Your task to perform on an android device: Empty the shopping cart on bestbuy.com. Search for macbook on bestbuy.com, select the first entry, add it to the cart, then select checkout. Image 0: 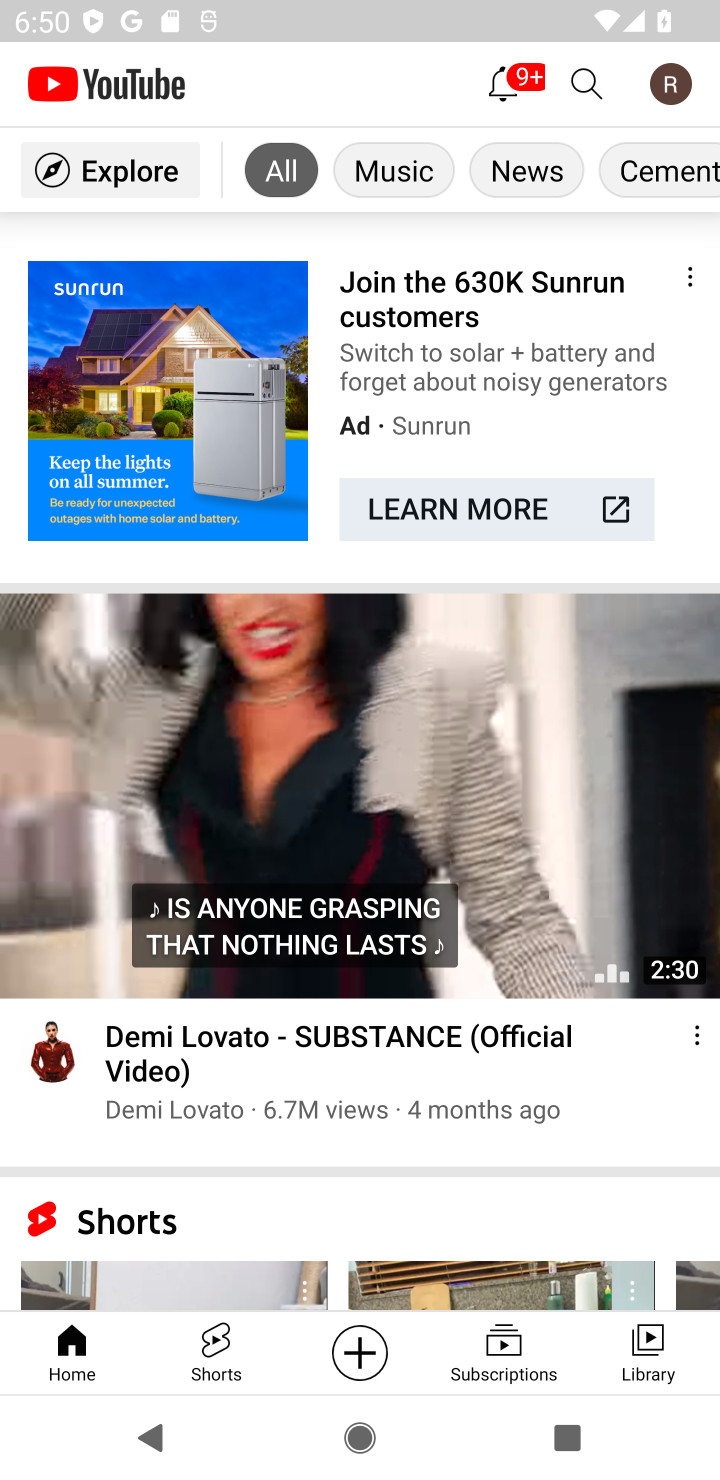
Step 0: press home button
Your task to perform on an android device: Empty the shopping cart on bestbuy.com. Search for macbook on bestbuy.com, select the first entry, add it to the cart, then select checkout. Image 1: 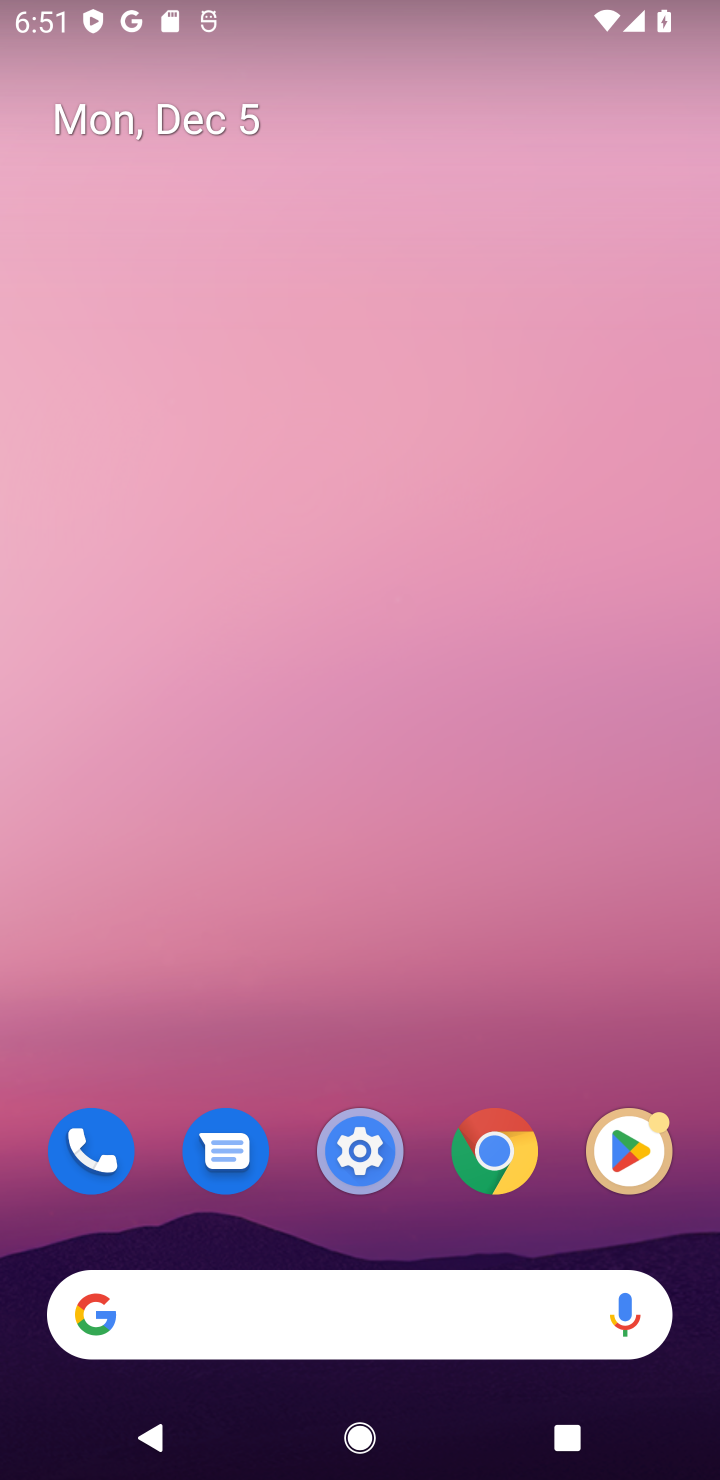
Step 1: click (317, 1286)
Your task to perform on an android device: Empty the shopping cart on bestbuy.com. Search for macbook on bestbuy.com, select the first entry, add it to the cart, then select checkout. Image 2: 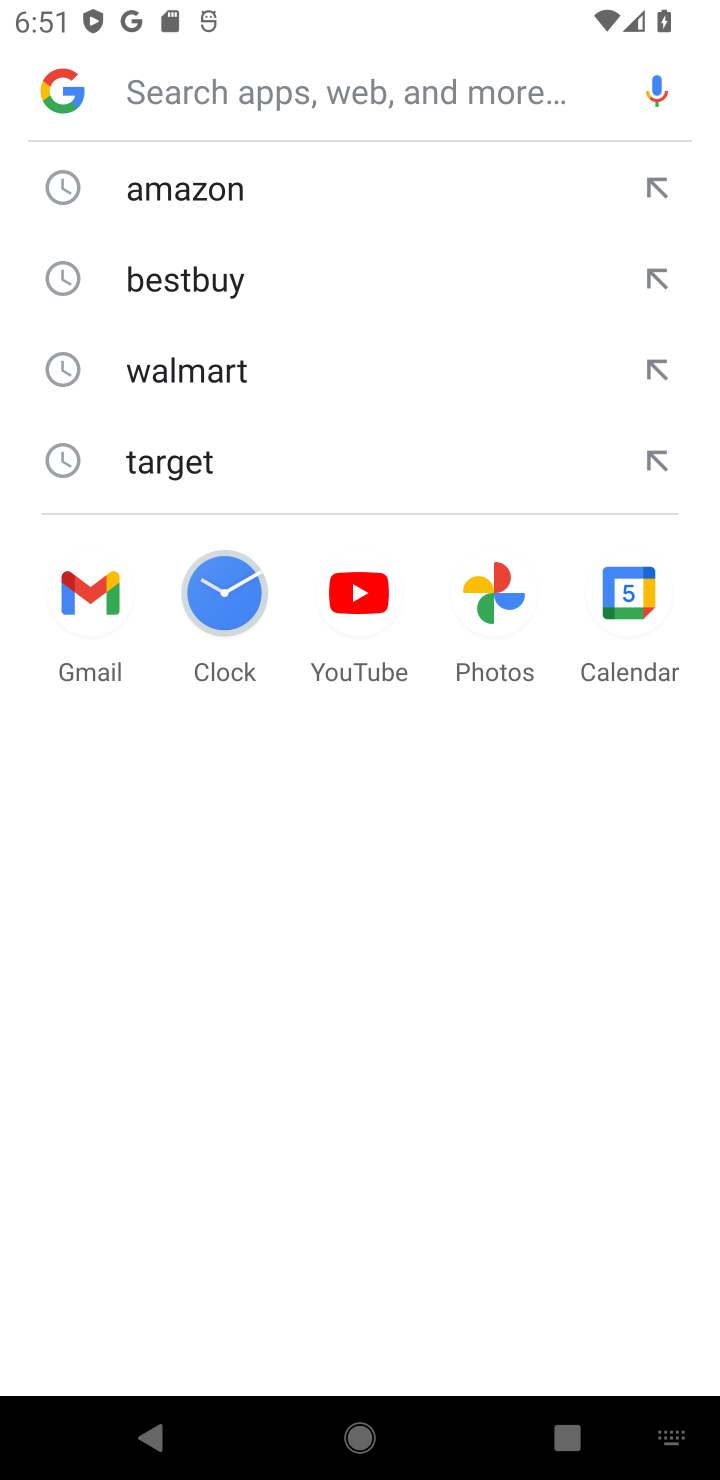
Step 2: click (124, 323)
Your task to perform on an android device: Empty the shopping cart on bestbuy.com. Search for macbook on bestbuy.com, select the first entry, add it to the cart, then select checkout. Image 3: 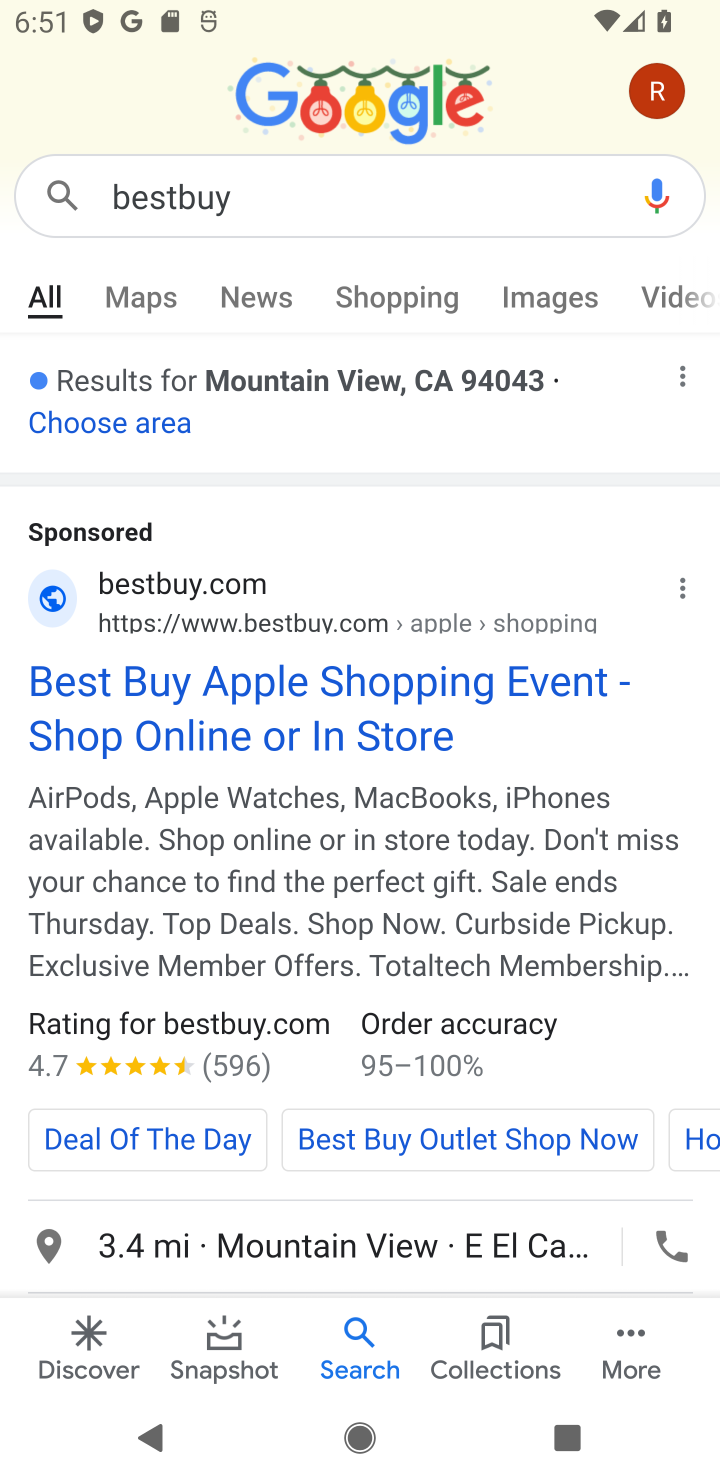
Step 3: click (200, 696)
Your task to perform on an android device: Empty the shopping cart on bestbuy.com. Search for macbook on bestbuy.com, select the first entry, add it to the cart, then select checkout. Image 4: 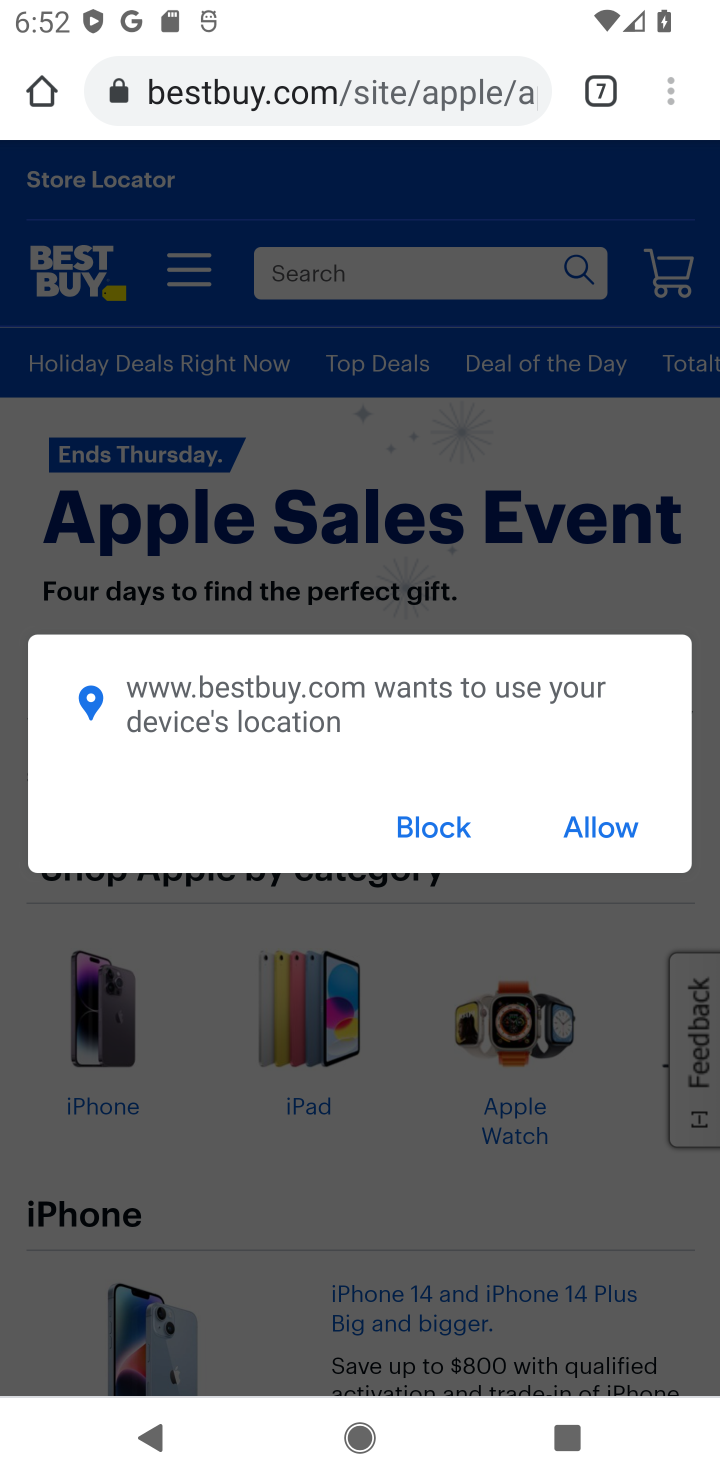
Step 4: click (582, 837)
Your task to perform on an android device: Empty the shopping cart on bestbuy.com. Search for macbook on bestbuy.com, select the first entry, add it to the cart, then select checkout. Image 5: 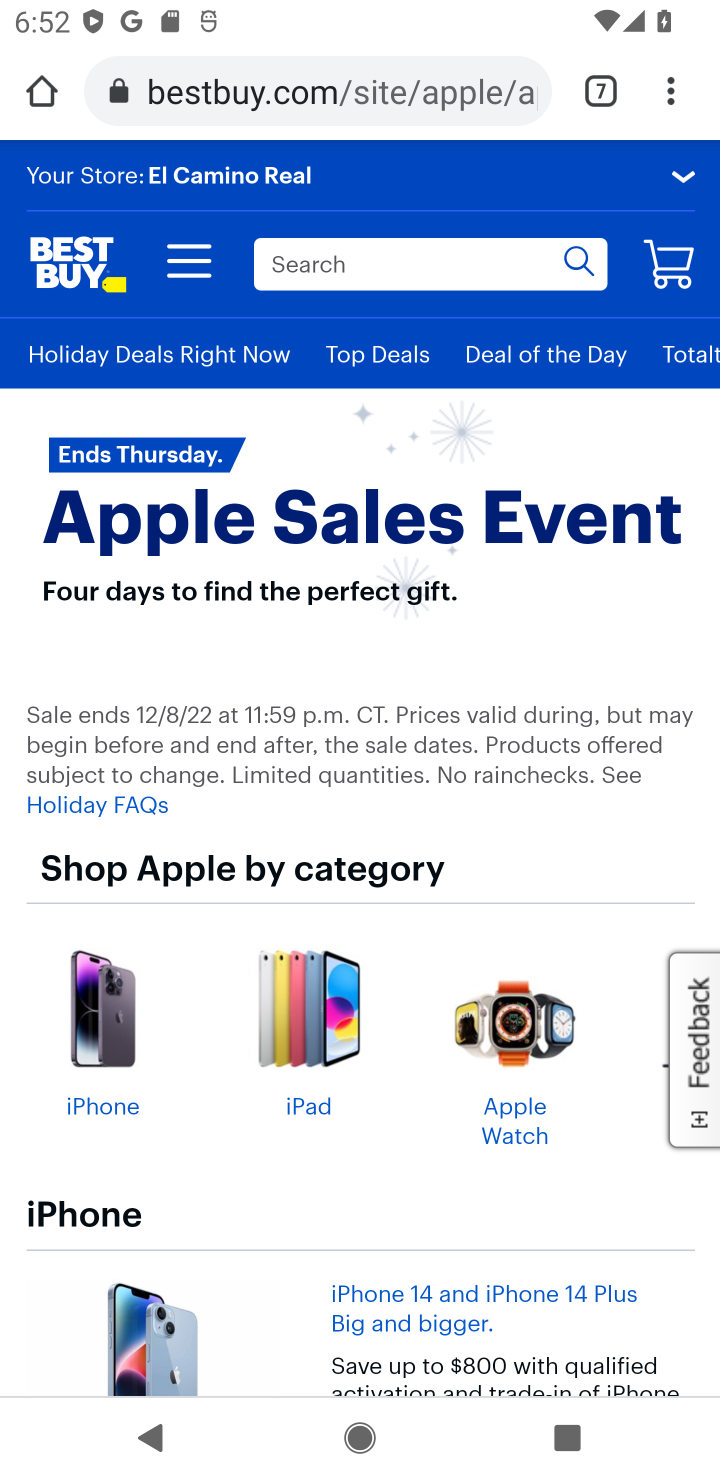
Step 5: click (428, 267)
Your task to perform on an android device: Empty the shopping cart on bestbuy.com. Search for macbook on bestbuy.com, select the first entry, add it to the cart, then select checkout. Image 6: 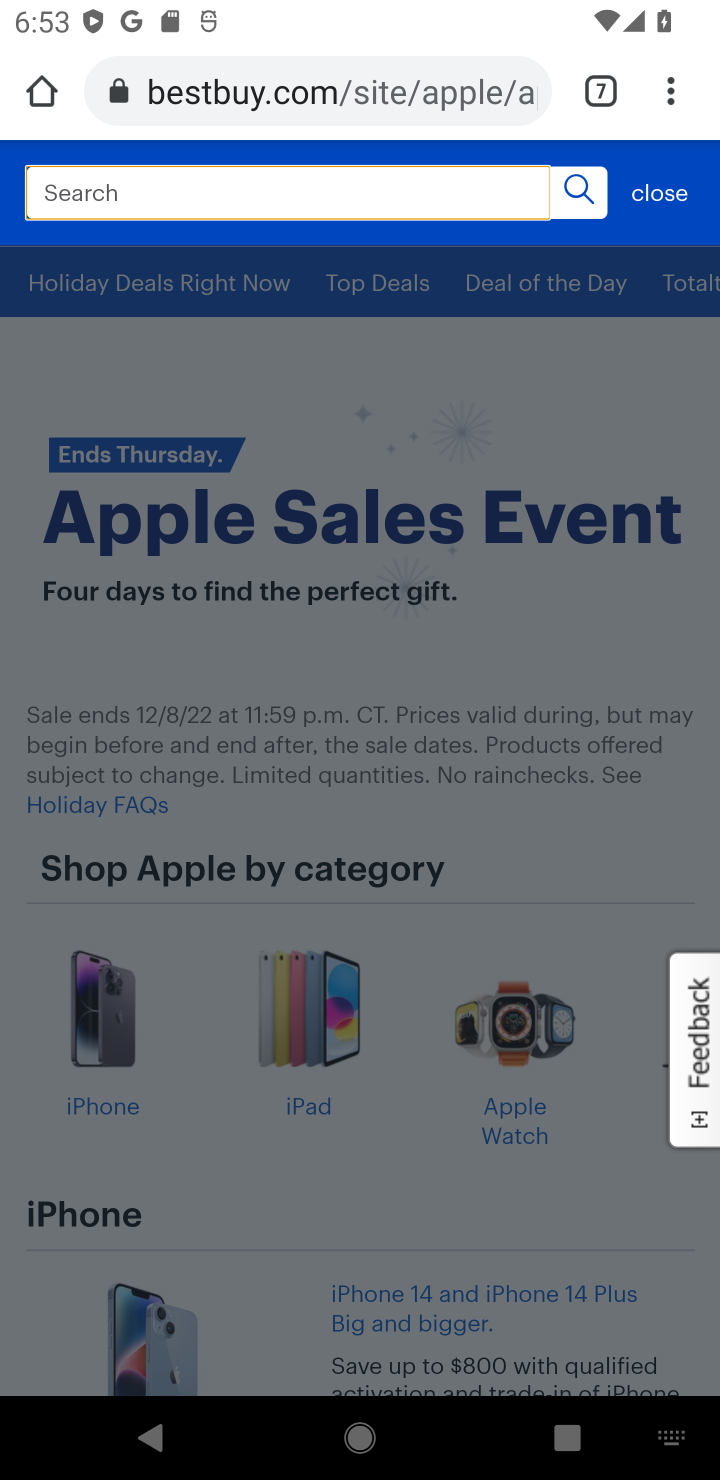
Step 6: click (273, 191)
Your task to perform on an android device: Empty the shopping cart on bestbuy.com. Search for macbook on bestbuy.com, select the first entry, add it to the cart, then select checkout. Image 7: 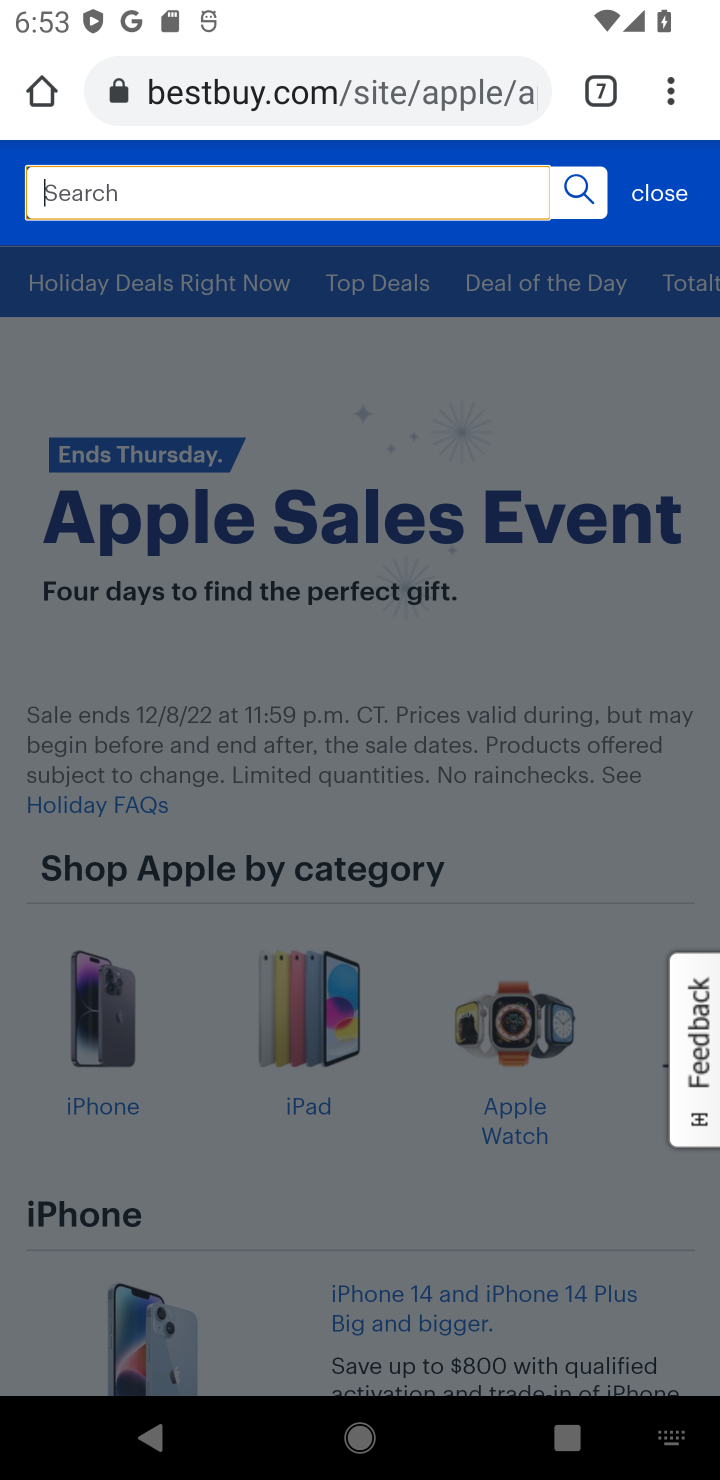
Step 7: type "mac"
Your task to perform on an android device: Empty the shopping cart on bestbuy.com. Search for macbook on bestbuy.com, select the first entry, add it to the cart, then select checkout. Image 8: 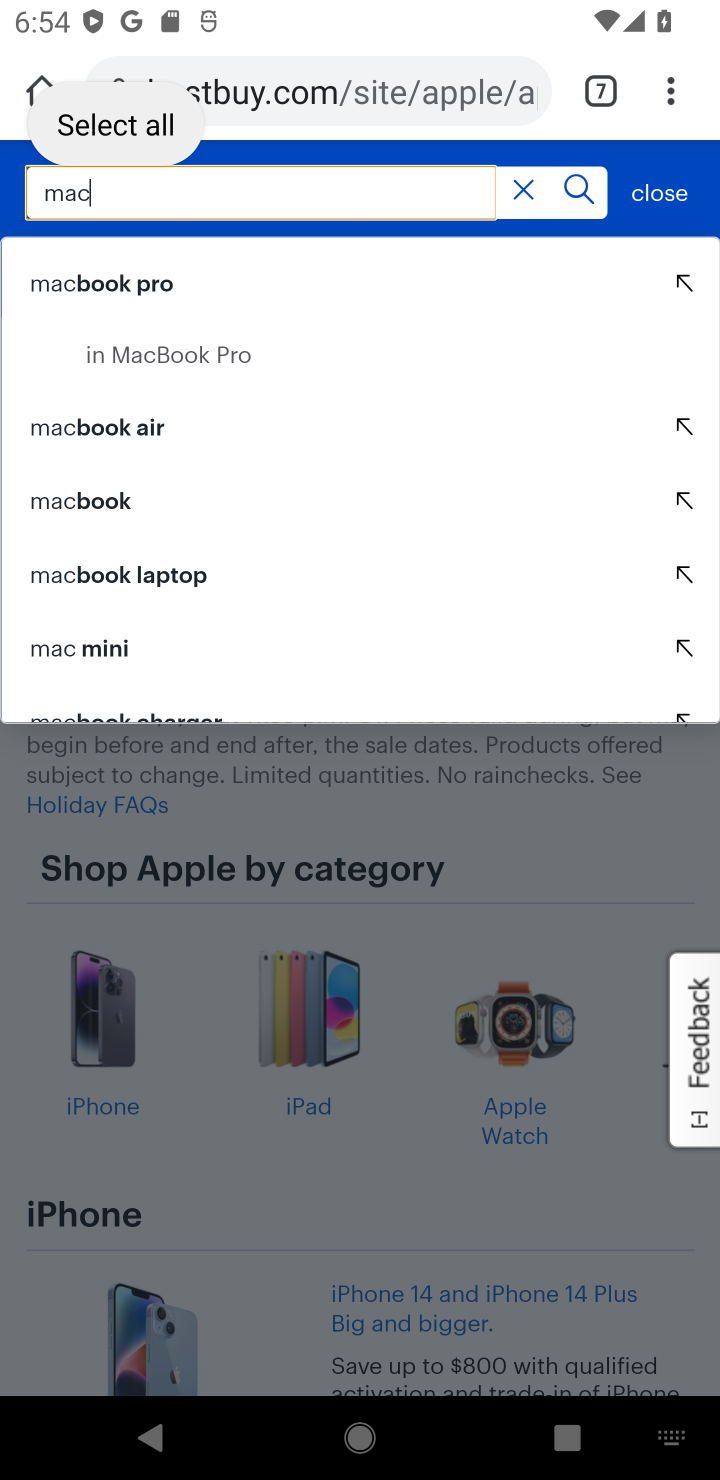
Step 8: type "macbook "
Your task to perform on an android device: Empty the shopping cart on bestbuy.com. Search for macbook on bestbuy.com, select the first entry, add it to the cart, then select checkout. Image 9: 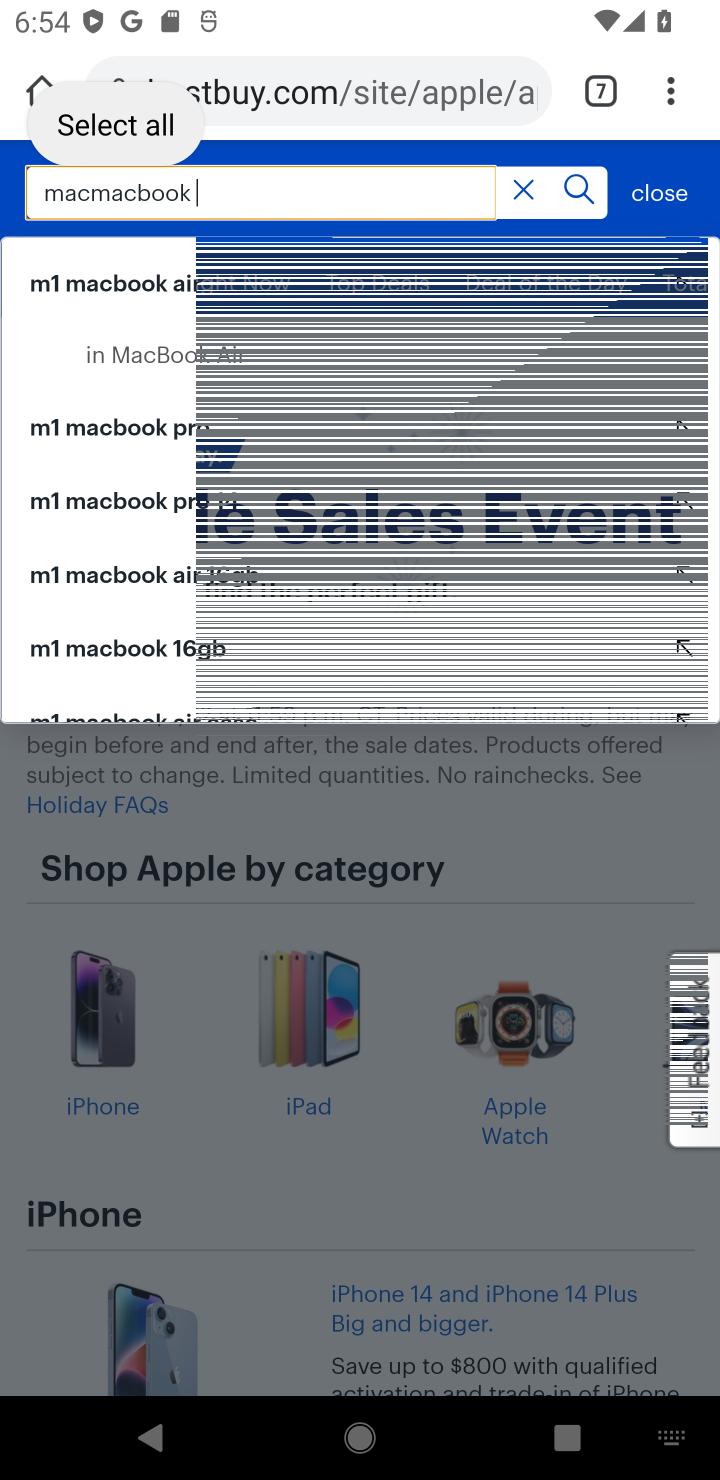
Step 9: click (61, 279)
Your task to perform on an android device: Empty the shopping cart on bestbuy.com. Search for macbook on bestbuy.com, select the first entry, add it to the cart, then select checkout. Image 10: 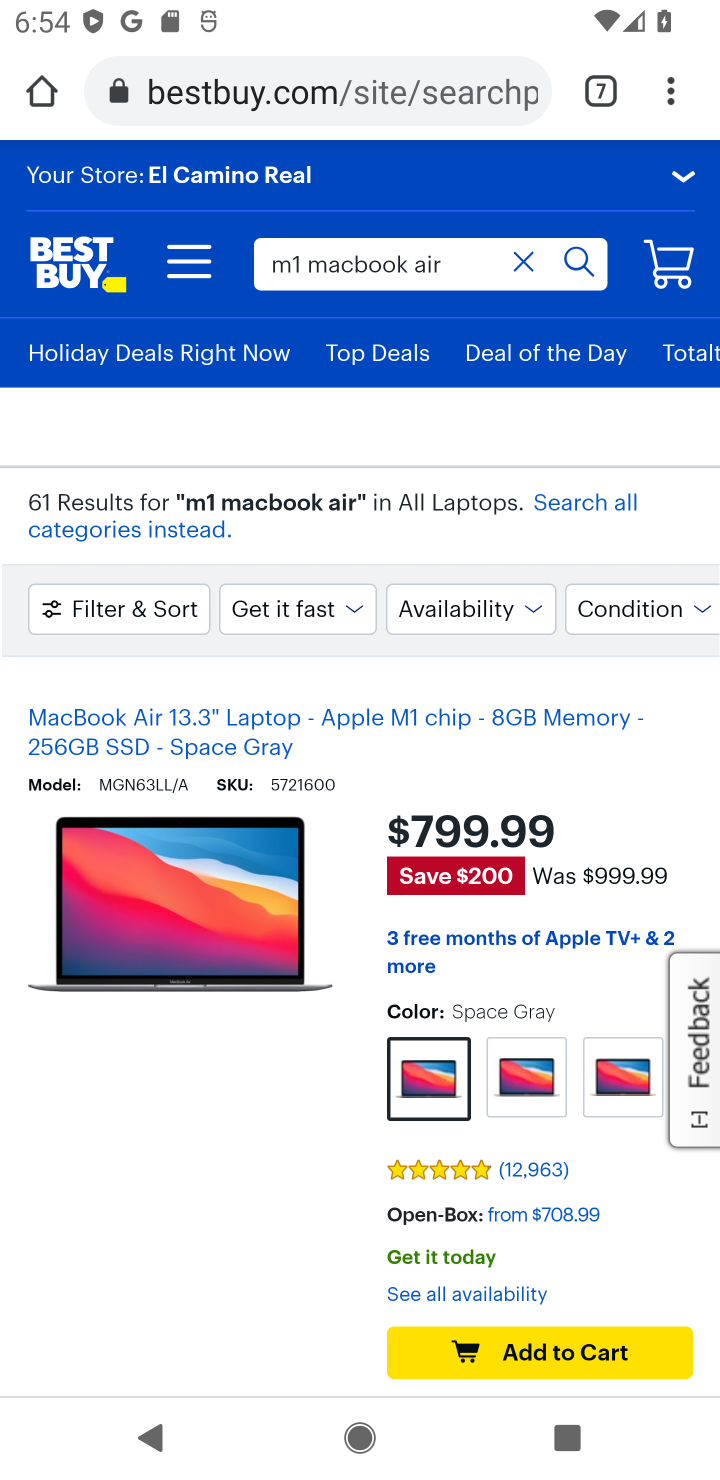
Step 10: task complete